Your task to perform on an android device: delete the emails in spam in the gmail app Image 0: 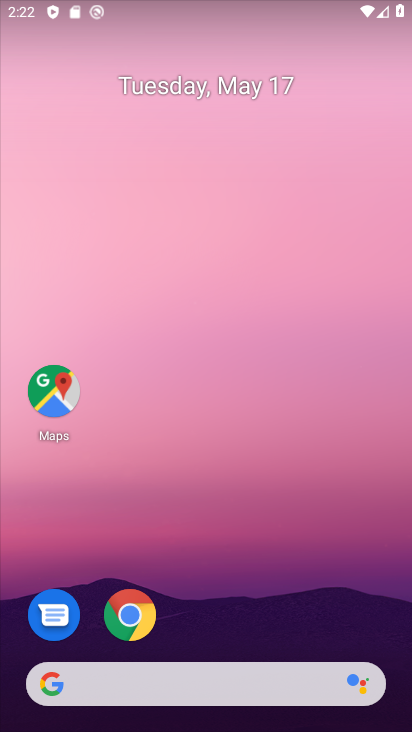
Step 0: drag from (210, 698) to (210, 129)
Your task to perform on an android device: delete the emails in spam in the gmail app Image 1: 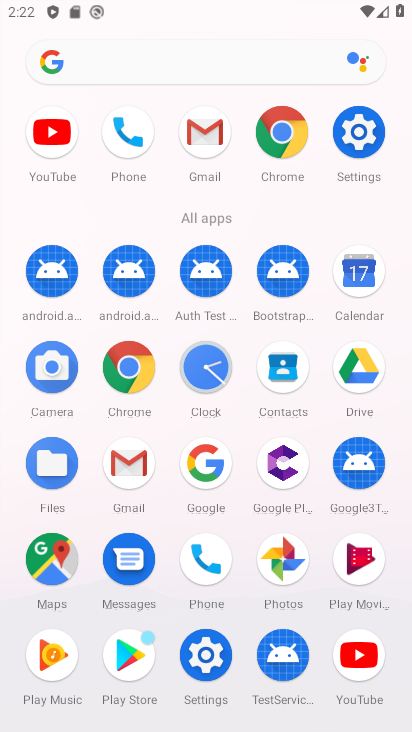
Step 1: click (120, 464)
Your task to perform on an android device: delete the emails in spam in the gmail app Image 2: 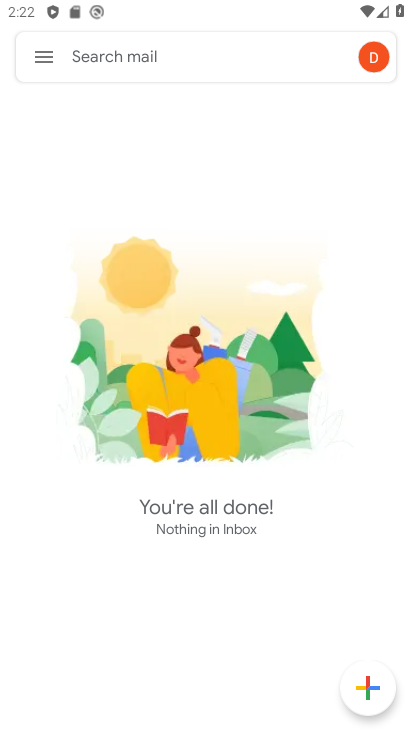
Step 2: click (43, 60)
Your task to perform on an android device: delete the emails in spam in the gmail app Image 3: 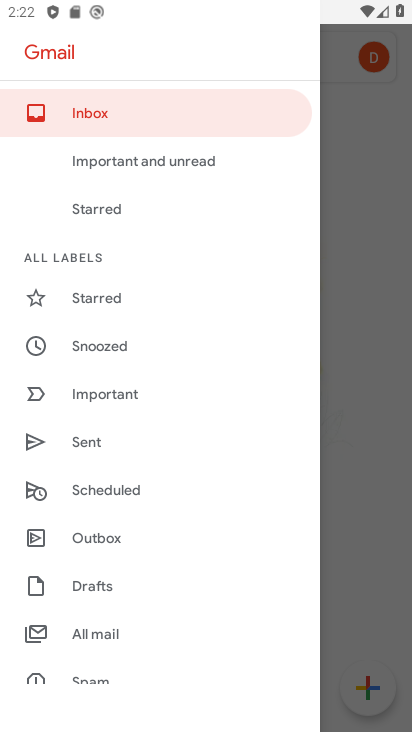
Step 3: drag from (100, 619) to (105, 335)
Your task to perform on an android device: delete the emails in spam in the gmail app Image 4: 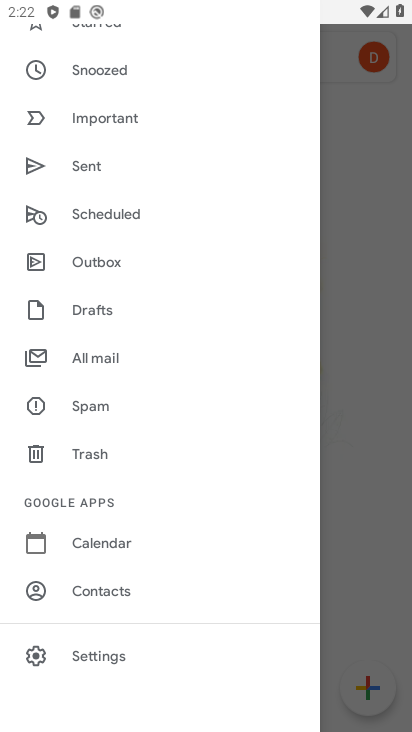
Step 4: click (90, 398)
Your task to perform on an android device: delete the emails in spam in the gmail app Image 5: 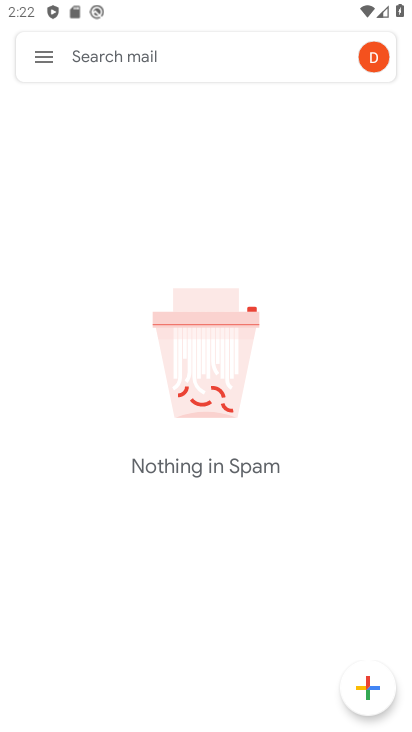
Step 5: task complete